Your task to perform on an android device: turn on wifi Image 0: 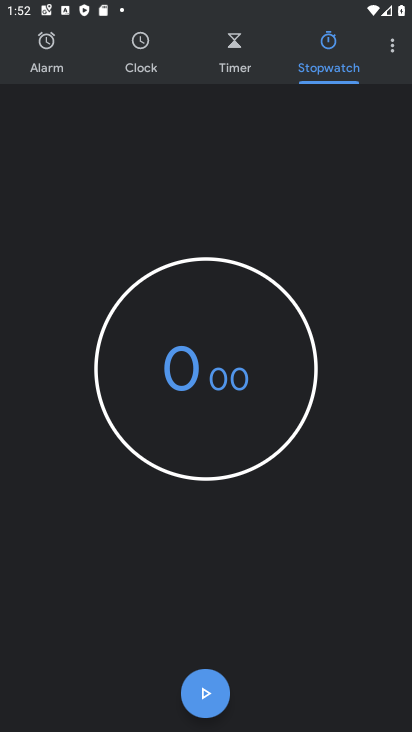
Step 0: press home button
Your task to perform on an android device: turn on wifi Image 1: 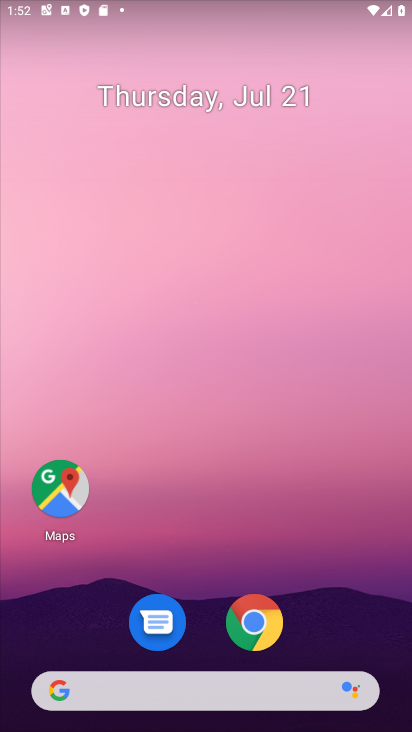
Step 1: drag from (294, 705) to (237, 80)
Your task to perform on an android device: turn on wifi Image 2: 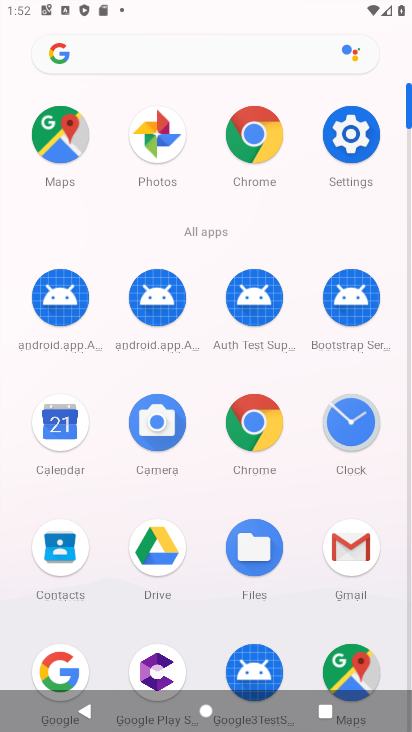
Step 2: click (341, 143)
Your task to perform on an android device: turn on wifi Image 3: 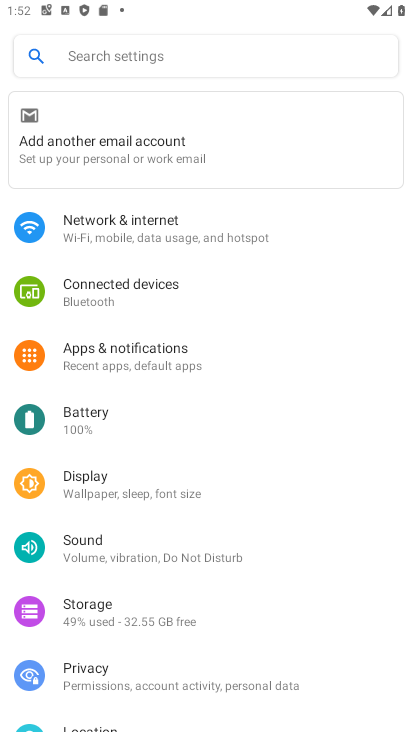
Step 3: click (124, 223)
Your task to perform on an android device: turn on wifi Image 4: 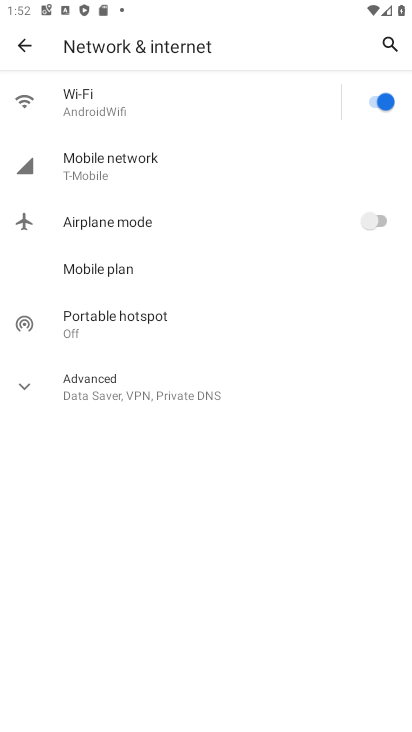
Step 4: click (96, 109)
Your task to perform on an android device: turn on wifi Image 5: 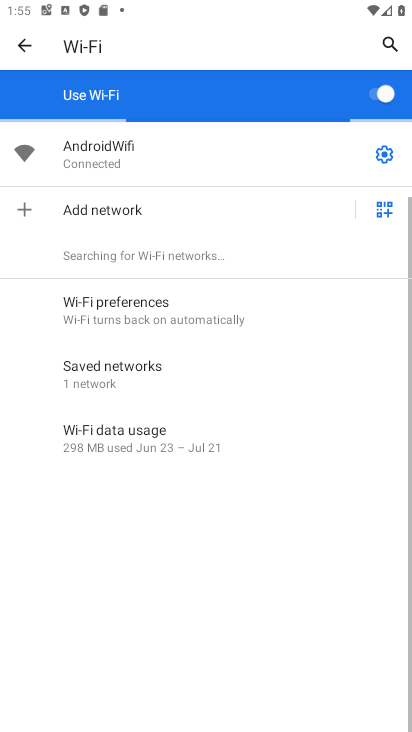
Step 5: task complete